Your task to perform on an android device: find photos in the google photos app Image 0: 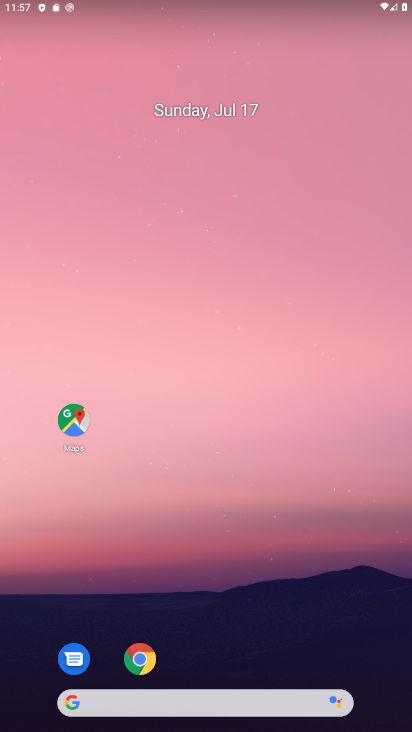
Step 0: click (182, 295)
Your task to perform on an android device: find photos in the google photos app Image 1: 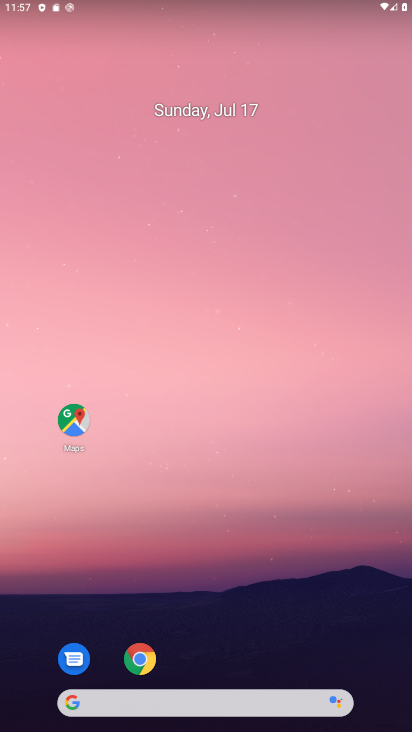
Step 1: drag from (197, 693) to (115, 43)
Your task to perform on an android device: find photos in the google photos app Image 2: 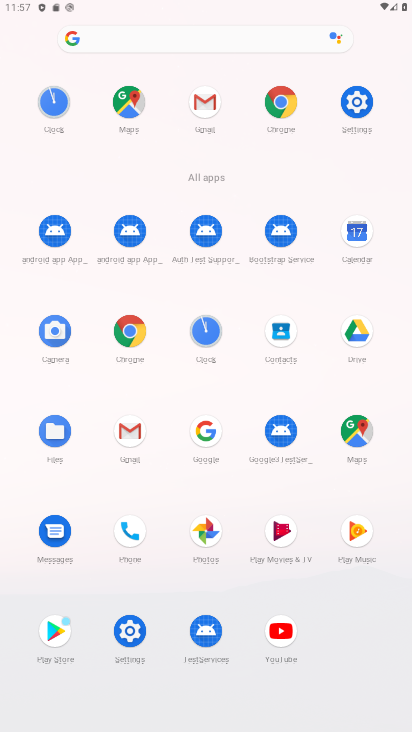
Step 2: drag from (193, 513) to (146, 110)
Your task to perform on an android device: find photos in the google photos app Image 3: 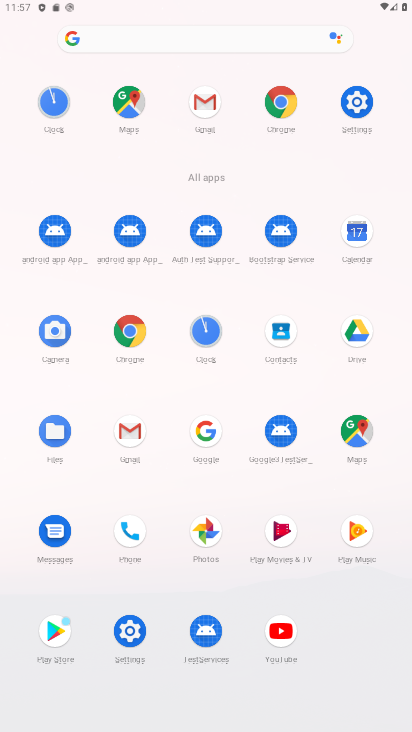
Step 3: click (213, 296)
Your task to perform on an android device: find photos in the google photos app Image 4: 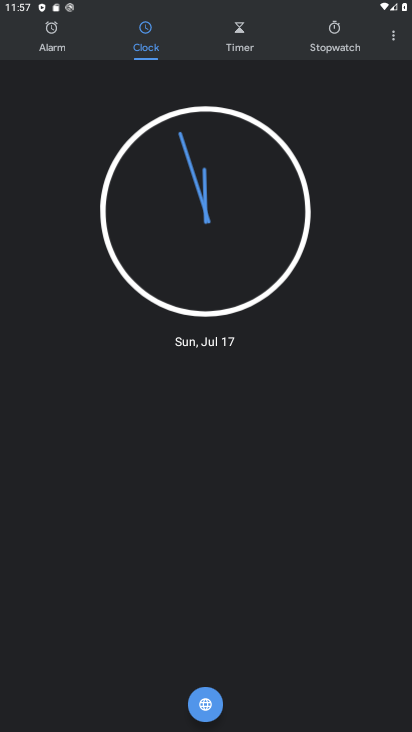
Step 4: press back button
Your task to perform on an android device: find photos in the google photos app Image 5: 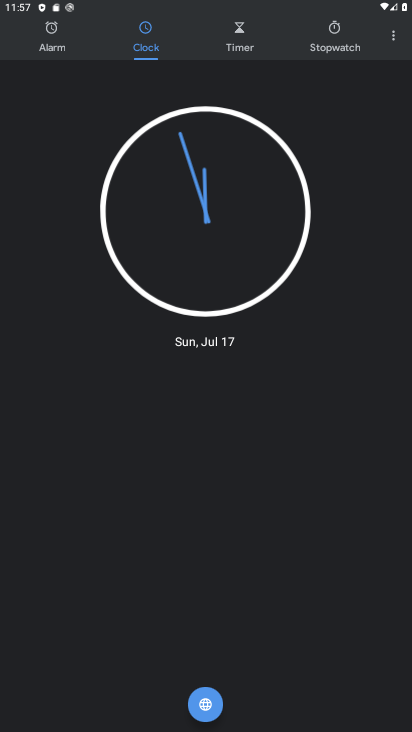
Step 5: press back button
Your task to perform on an android device: find photos in the google photos app Image 6: 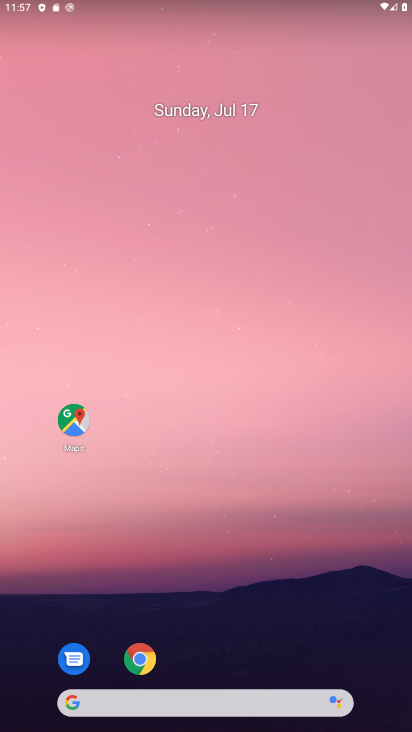
Step 6: drag from (279, 720) to (289, 78)
Your task to perform on an android device: find photos in the google photos app Image 7: 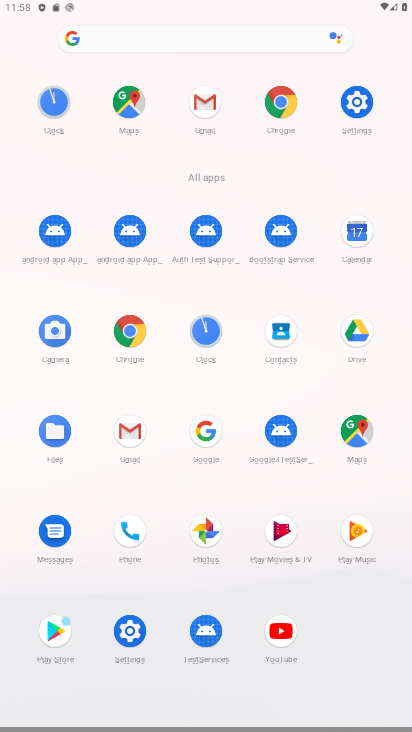
Step 7: click (209, 531)
Your task to perform on an android device: find photos in the google photos app Image 8: 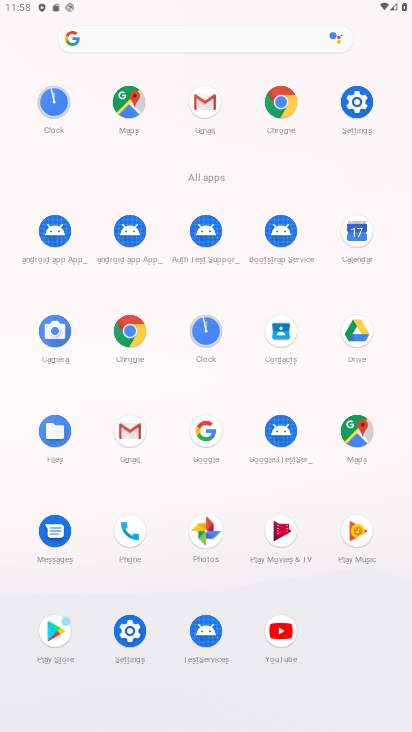
Step 8: click (208, 530)
Your task to perform on an android device: find photos in the google photos app Image 9: 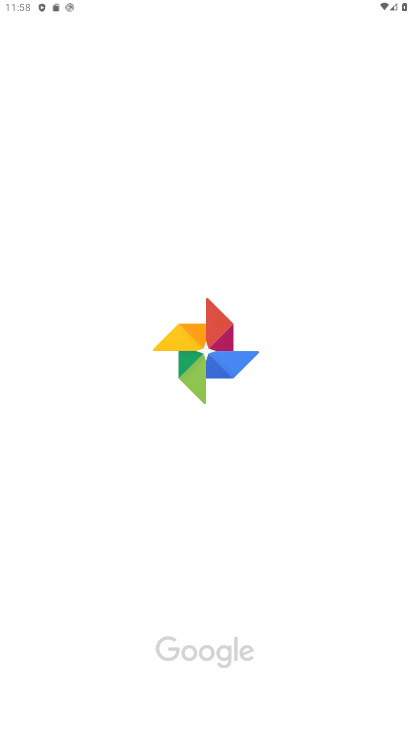
Step 9: click (208, 529)
Your task to perform on an android device: find photos in the google photos app Image 10: 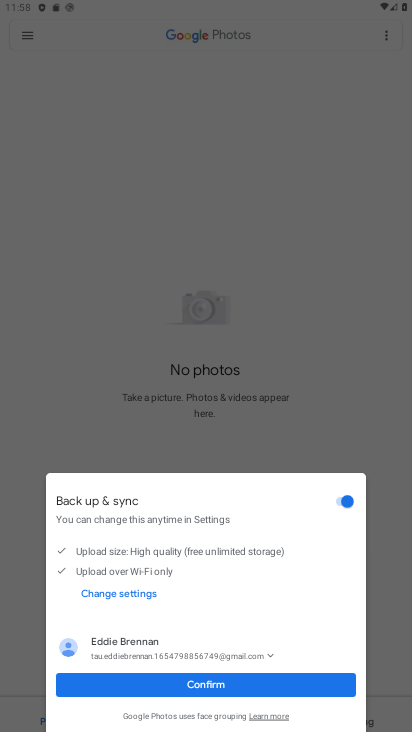
Step 10: click (268, 279)
Your task to perform on an android device: find photos in the google photos app Image 11: 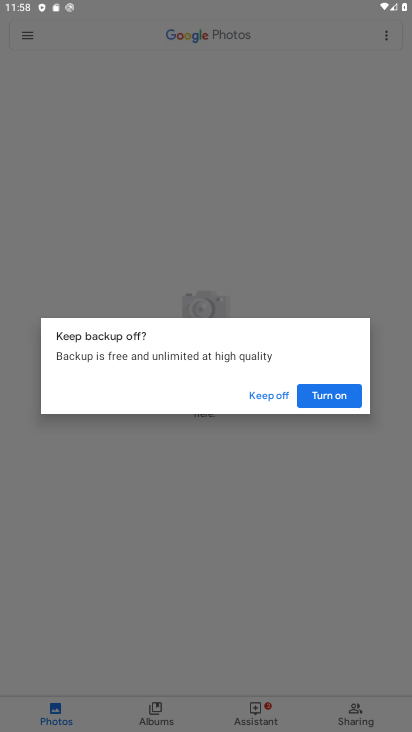
Step 11: click (278, 275)
Your task to perform on an android device: find photos in the google photos app Image 12: 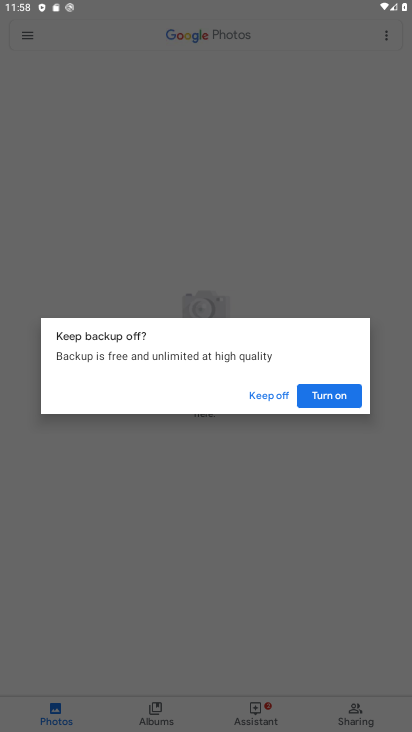
Step 12: click (286, 391)
Your task to perform on an android device: find photos in the google photos app Image 13: 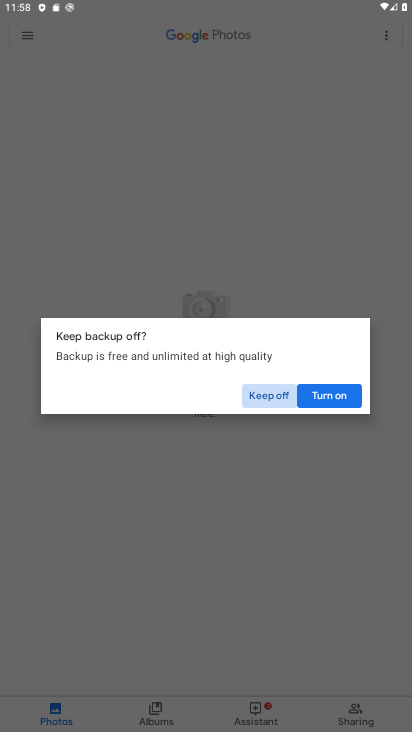
Step 13: click (277, 396)
Your task to perform on an android device: find photos in the google photos app Image 14: 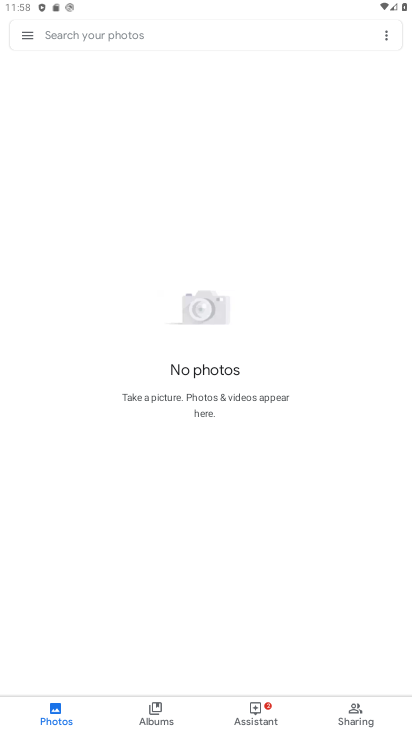
Step 14: task complete